Your task to perform on an android device: Find coffee shops on Maps Image 0: 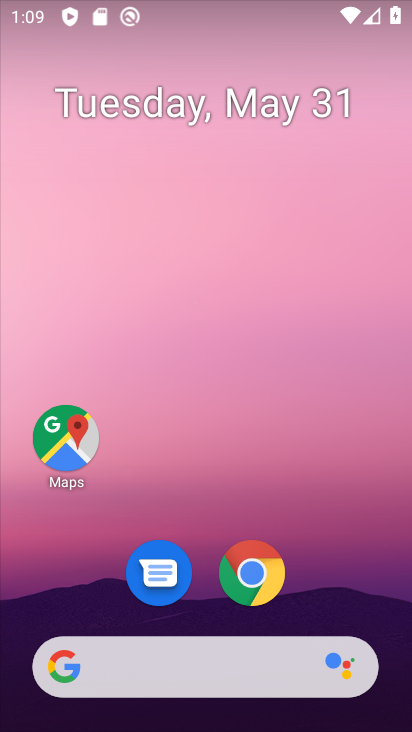
Step 0: drag from (383, 600) to (365, 204)
Your task to perform on an android device: Find coffee shops on Maps Image 1: 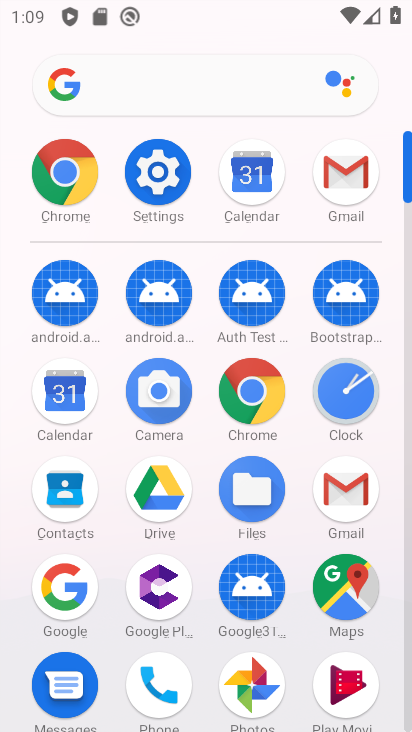
Step 1: click (351, 600)
Your task to perform on an android device: Find coffee shops on Maps Image 2: 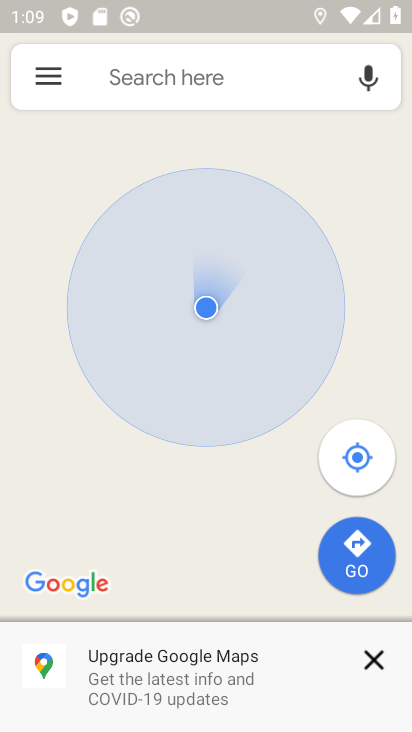
Step 2: click (241, 85)
Your task to perform on an android device: Find coffee shops on Maps Image 3: 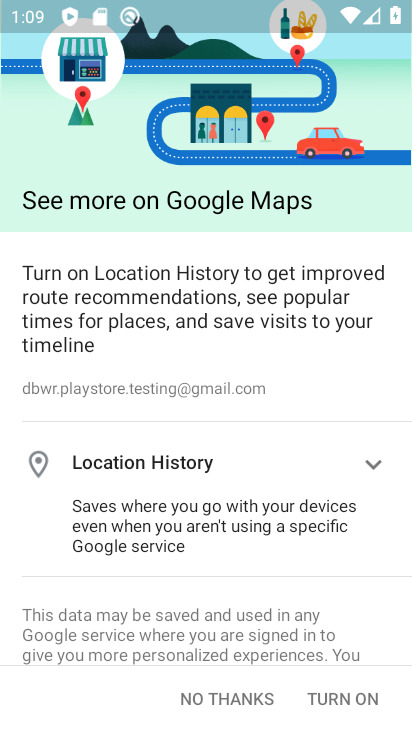
Step 3: click (246, 701)
Your task to perform on an android device: Find coffee shops on Maps Image 4: 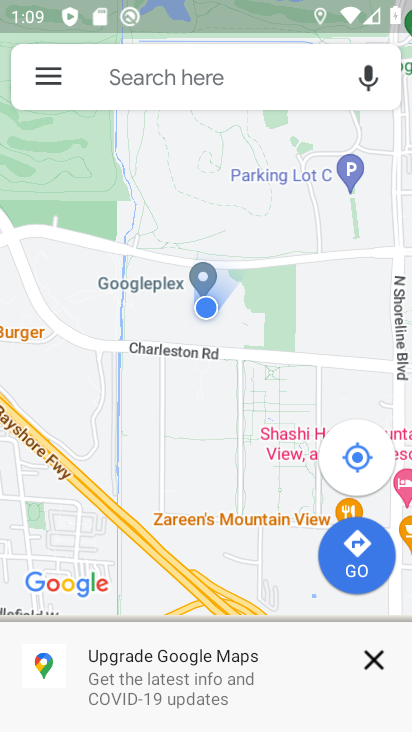
Step 4: click (196, 76)
Your task to perform on an android device: Find coffee shops on Maps Image 5: 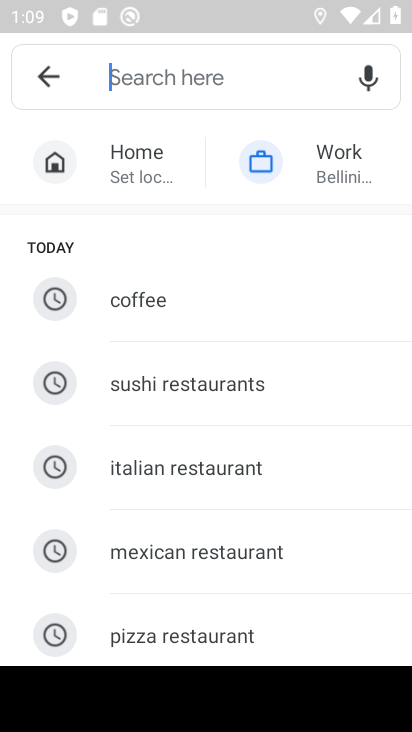
Step 5: type "coffee"
Your task to perform on an android device: Find coffee shops on Maps Image 6: 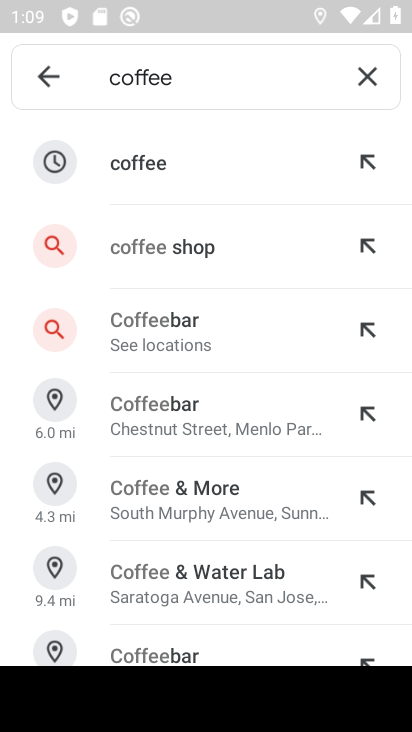
Step 6: click (181, 161)
Your task to perform on an android device: Find coffee shops on Maps Image 7: 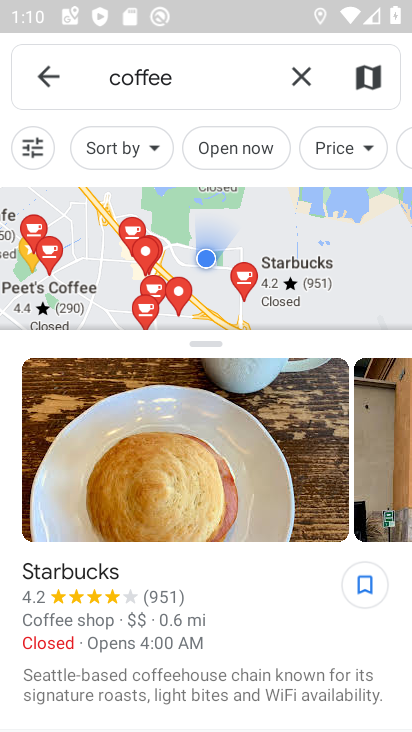
Step 7: task complete